Your task to perform on an android device: toggle sleep mode Image 0: 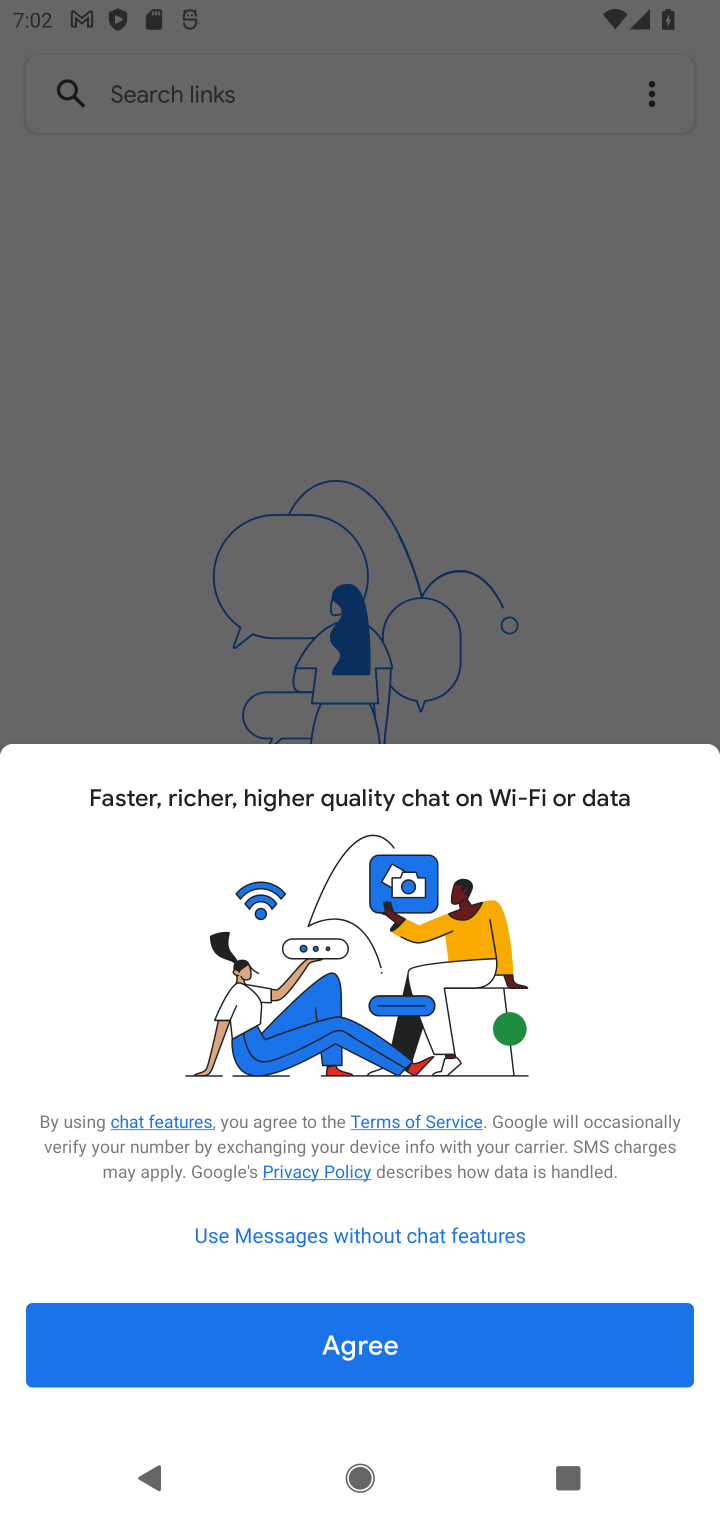
Step 0: press home button
Your task to perform on an android device: toggle sleep mode Image 1: 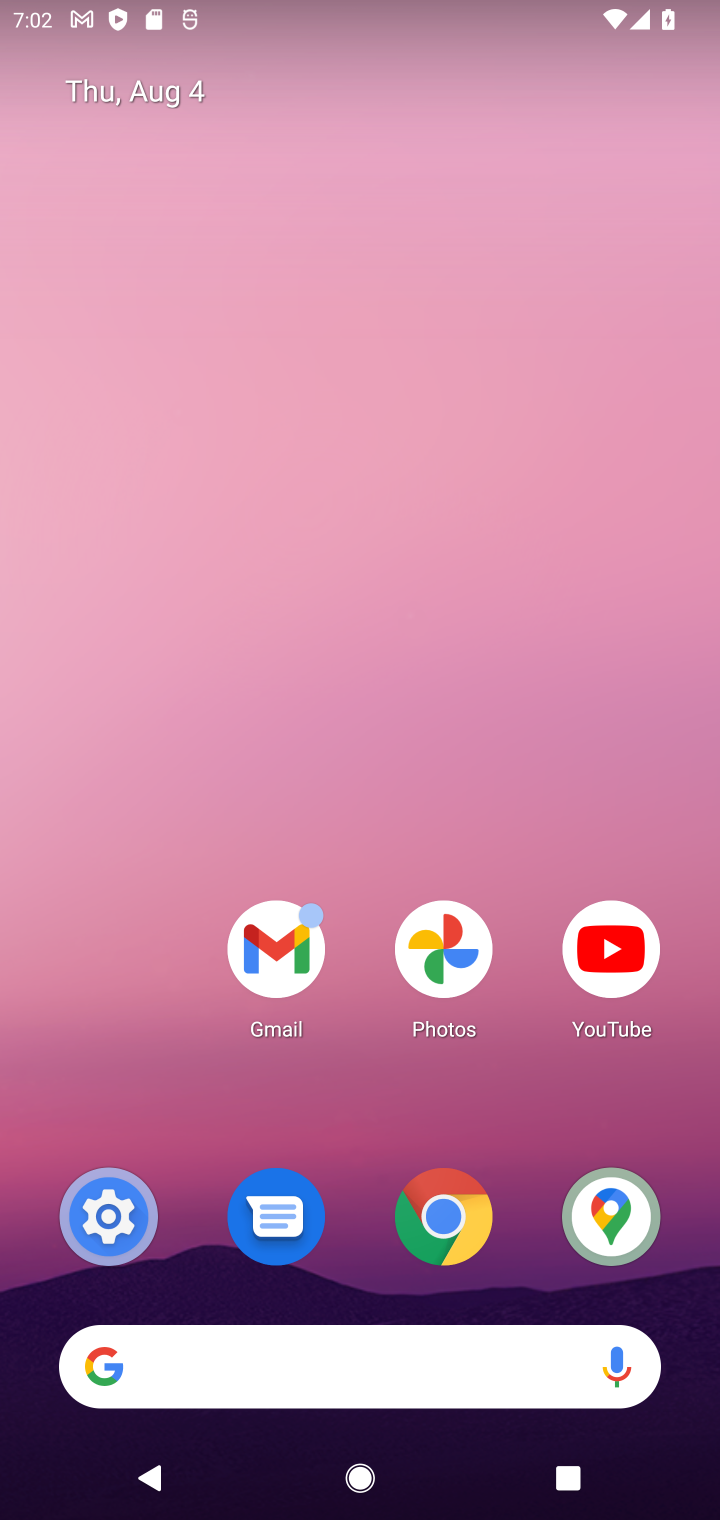
Step 1: drag from (372, 1192) to (368, 160)
Your task to perform on an android device: toggle sleep mode Image 2: 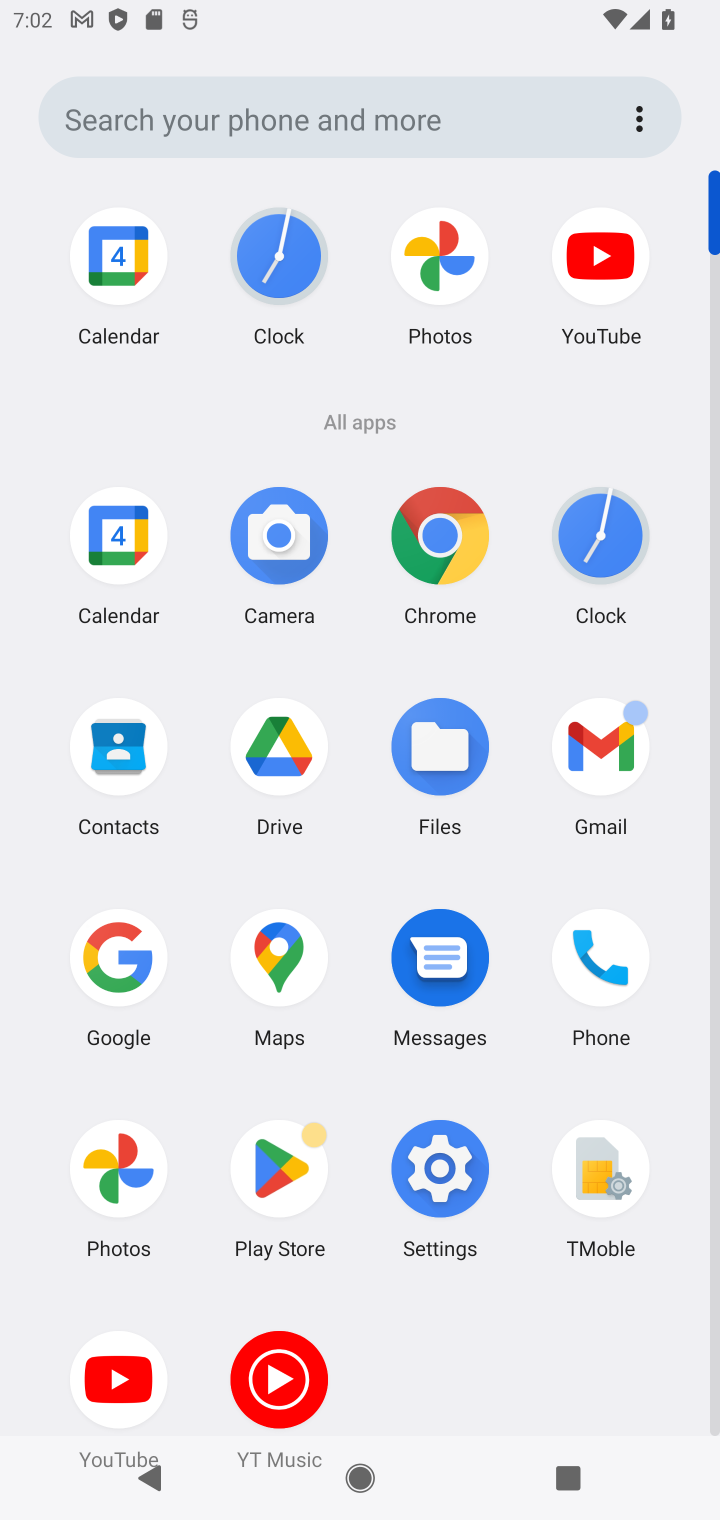
Step 2: click (444, 1183)
Your task to perform on an android device: toggle sleep mode Image 3: 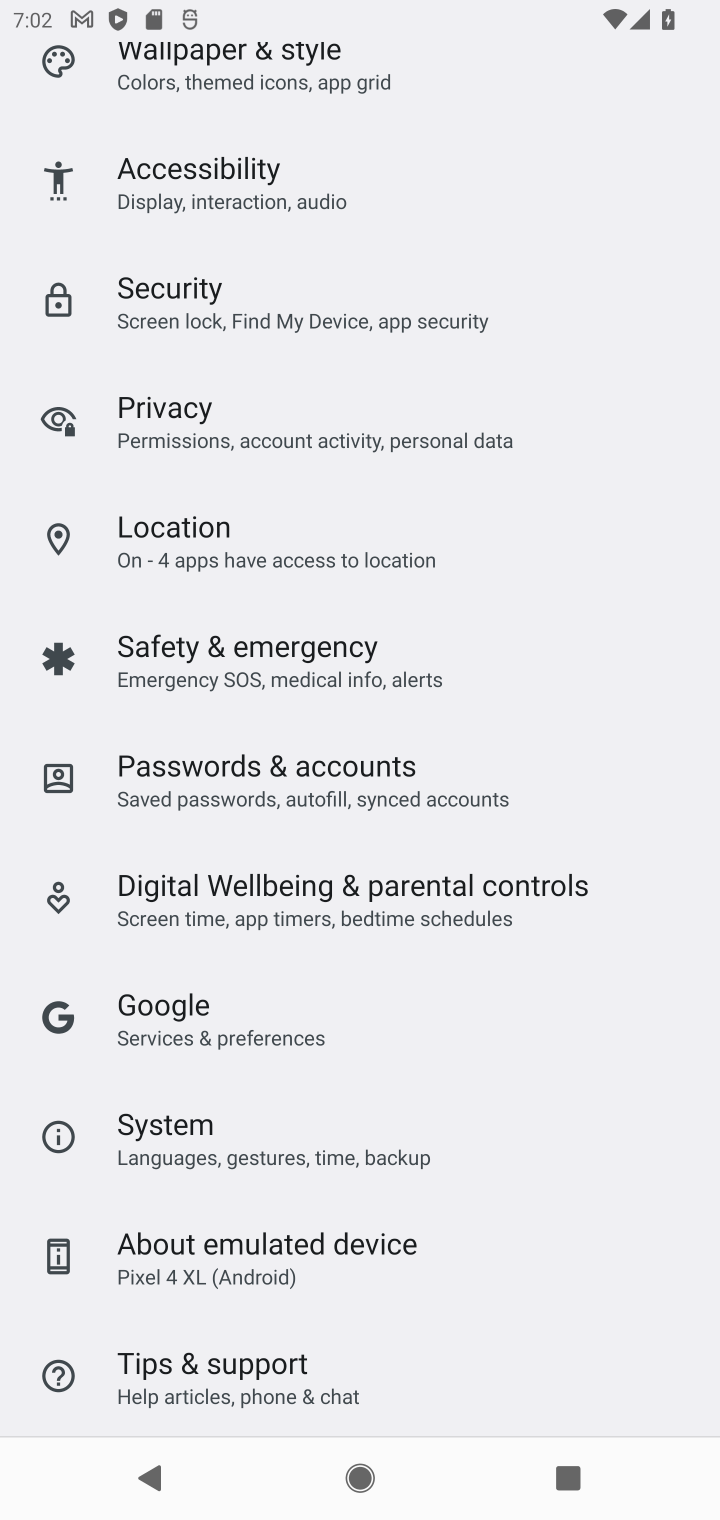
Step 3: task complete